Your task to perform on an android device: open sync settings in chrome Image 0: 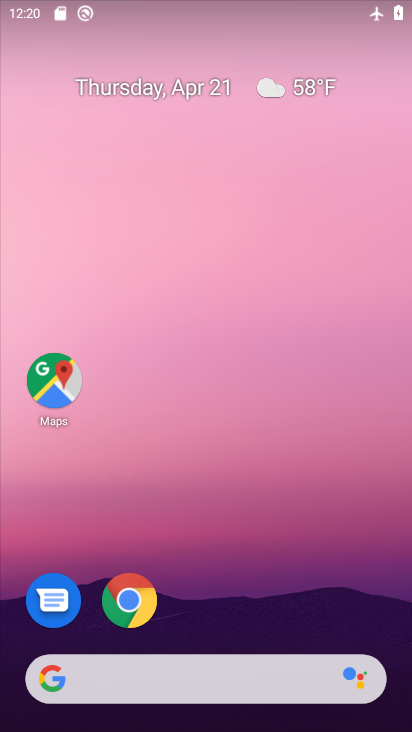
Step 0: click (143, 596)
Your task to perform on an android device: open sync settings in chrome Image 1: 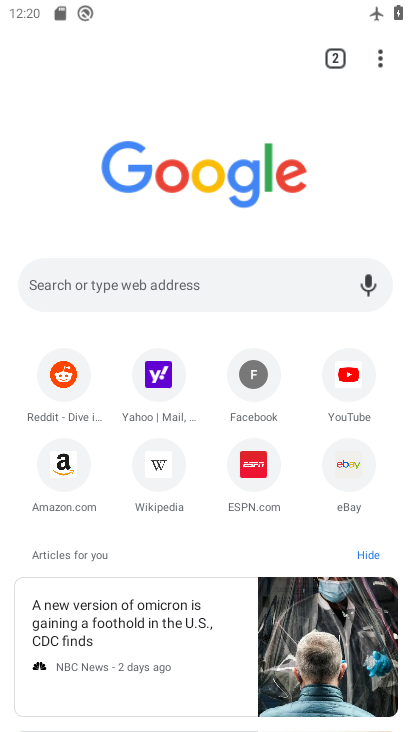
Step 1: click (380, 55)
Your task to perform on an android device: open sync settings in chrome Image 2: 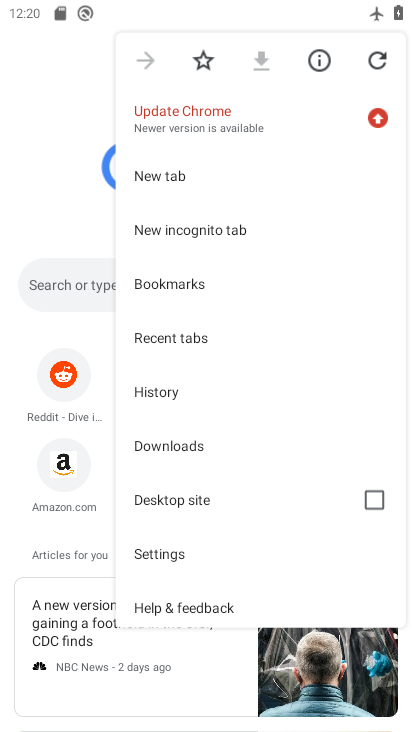
Step 2: click (179, 550)
Your task to perform on an android device: open sync settings in chrome Image 3: 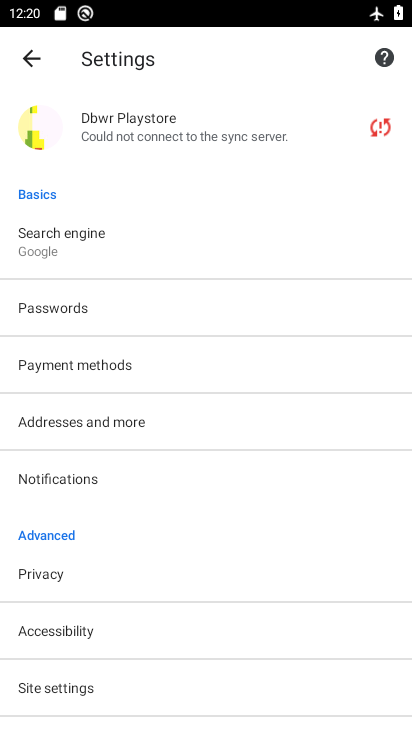
Step 3: click (181, 126)
Your task to perform on an android device: open sync settings in chrome Image 4: 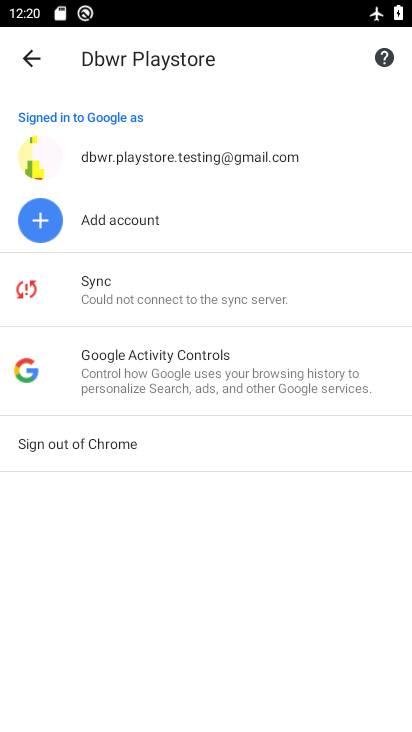
Step 4: click (152, 287)
Your task to perform on an android device: open sync settings in chrome Image 5: 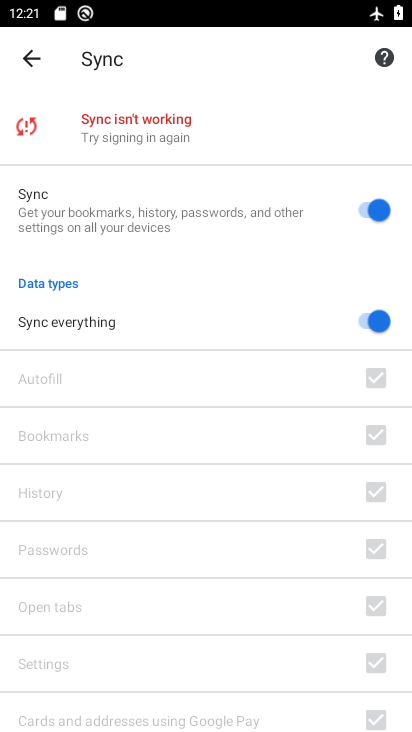
Step 5: task complete